Your task to perform on an android device: find snoozed emails in the gmail app Image 0: 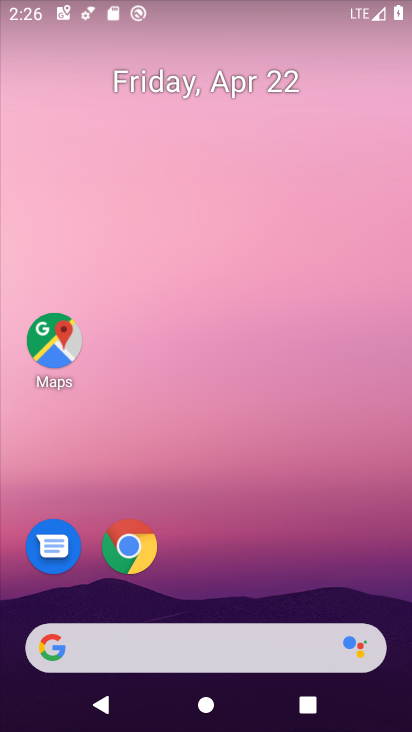
Step 0: drag from (293, 243) to (335, 2)
Your task to perform on an android device: find snoozed emails in the gmail app Image 1: 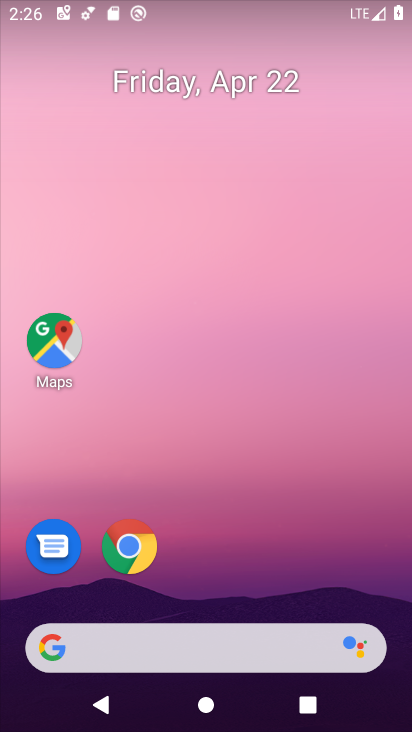
Step 1: drag from (246, 400) to (261, 168)
Your task to perform on an android device: find snoozed emails in the gmail app Image 2: 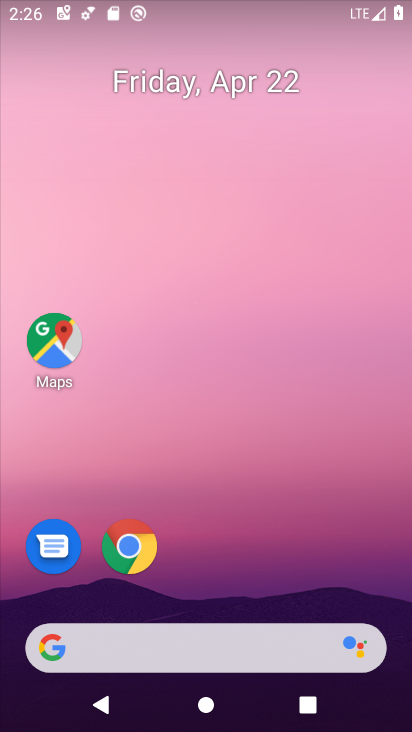
Step 2: drag from (206, 540) to (285, 150)
Your task to perform on an android device: find snoozed emails in the gmail app Image 3: 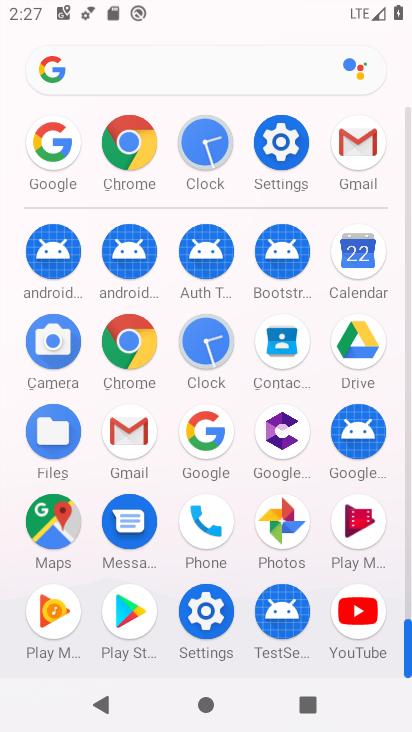
Step 3: click (142, 439)
Your task to perform on an android device: find snoozed emails in the gmail app Image 4: 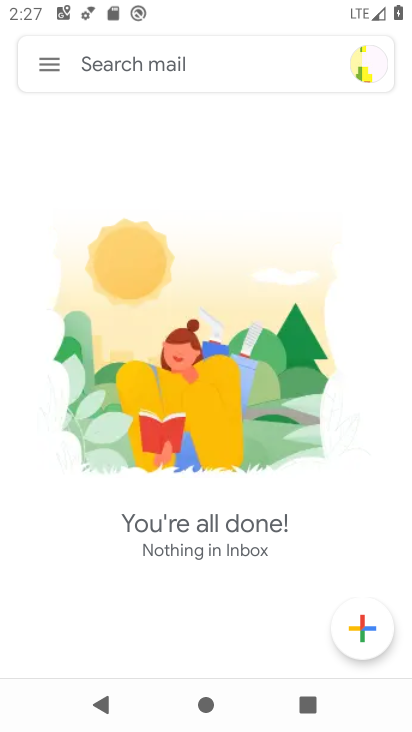
Step 4: click (56, 74)
Your task to perform on an android device: find snoozed emails in the gmail app Image 5: 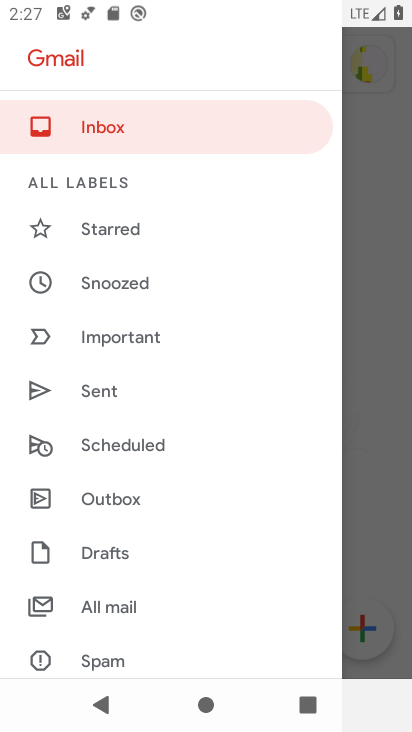
Step 5: drag from (139, 478) to (181, 265)
Your task to perform on an android device: find snoozed emails in the gmail app Image 6: 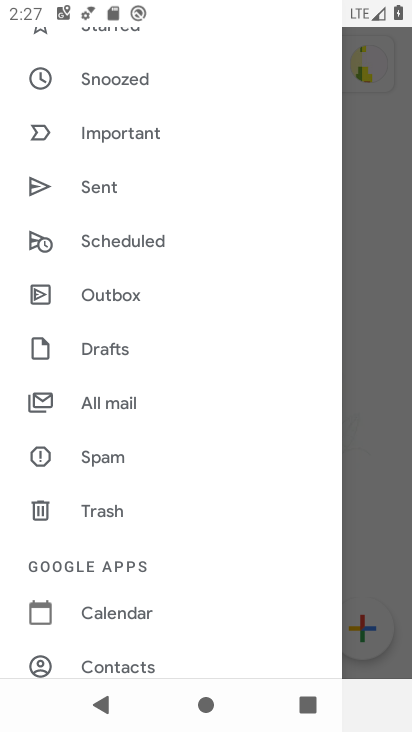
Step 6: drag from (141, 541) to (183, 274)
Your task to perform on an android device: find snoozed emails in the gmail app Image 7: 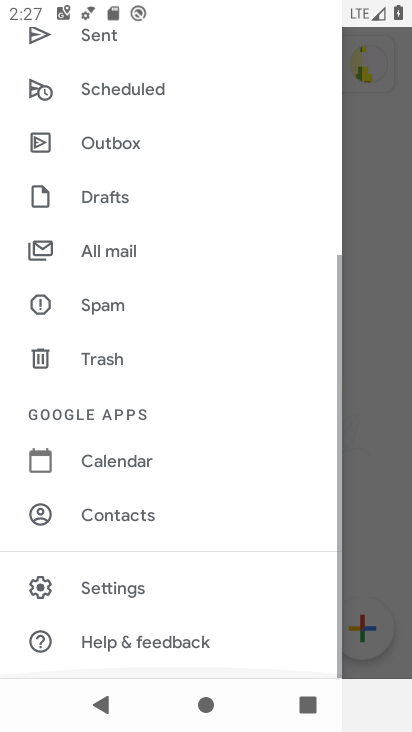
Step 7: drag from (173, 337) to (139, 555)
Your task to perform on an android device: find snoozed emails in the gmail app Image 8: 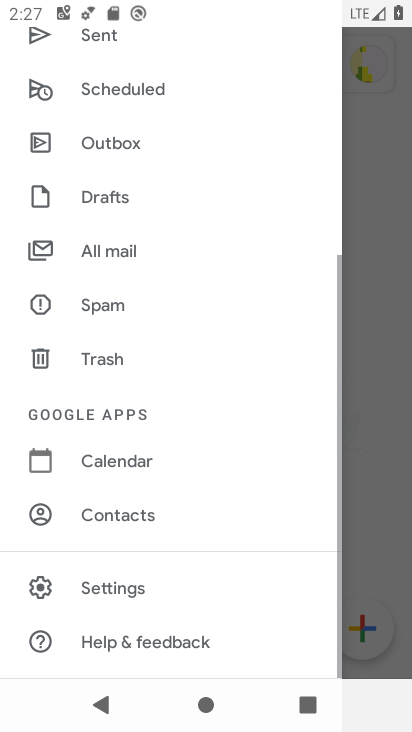
Step 8: drag from (150, 362) to (179, 591)
Your task to perform on an android device: find snoozed emails in the gmail app Image 9: 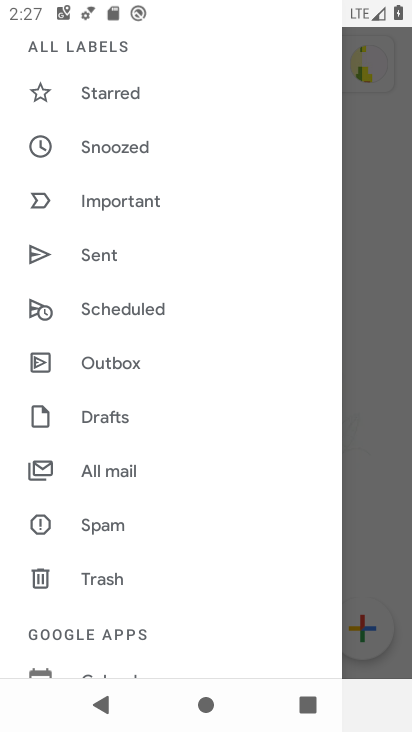
Step 9: click (146, 148)
Your task to perform on an android device: find snoozed emails in the gmail app Image 10: 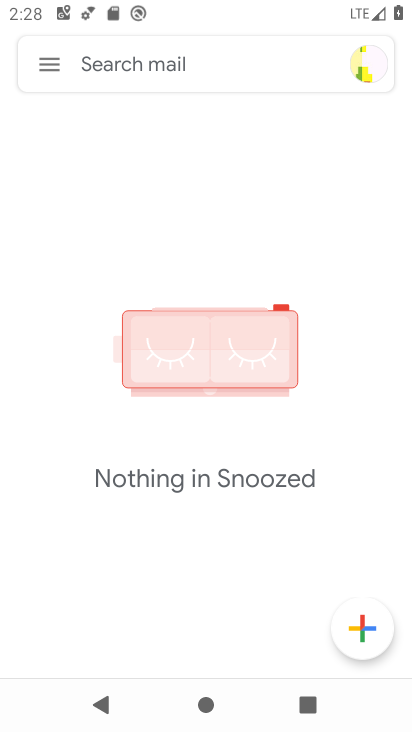
Step 10: task complete